Your task to perform on an android device: add a label to a message in the gmail app Image 0: 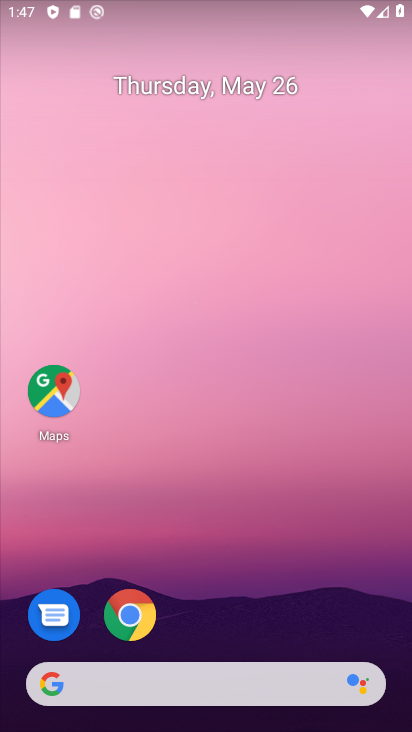
Step 0: drag from (209, 337) to (209, 48)
Your task to perform on an android device: add a label to a message in the gmail app Image 1: 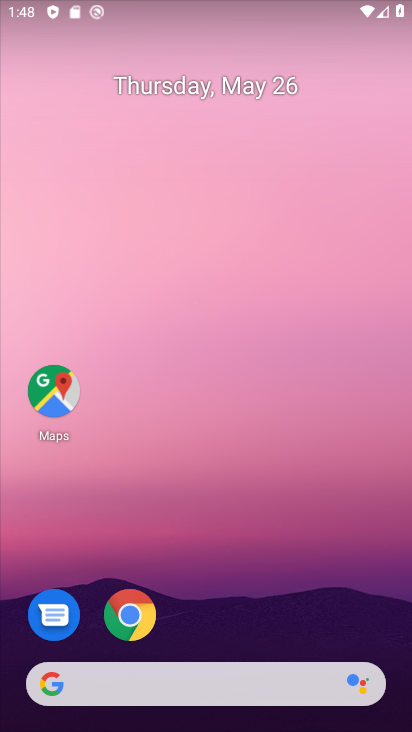
Step 1: drag from (208, 650) to (228, 69)
Your task to perform on an android device: add a label to a message in the gmail app Image 2: 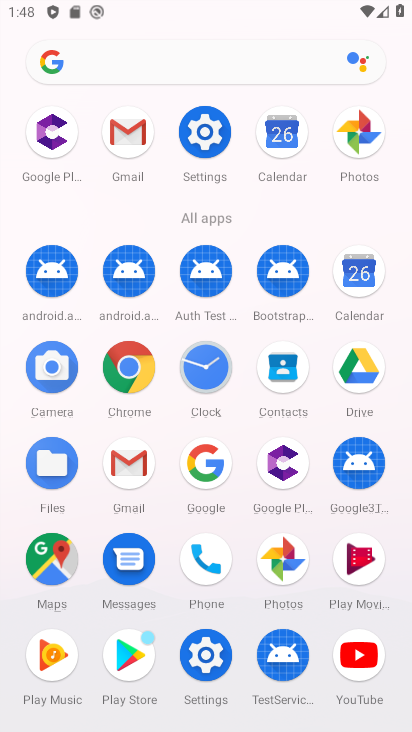
Step 2: click (123, 122)
Your task to perform on an android device: add a label to a message in the gmail app Image 3: 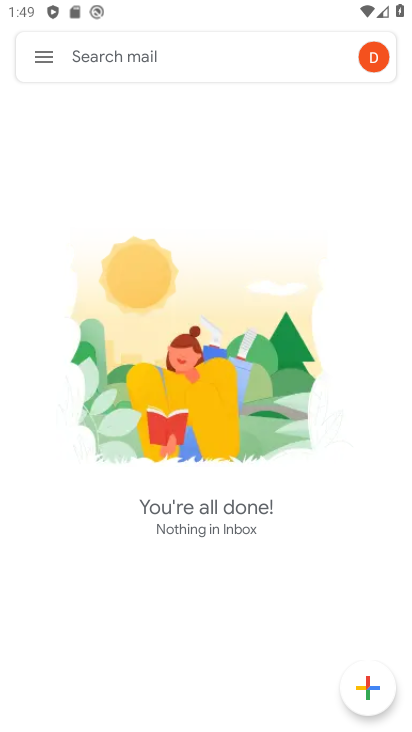
Step 3: task complete